Your task to perform on an android device: empty trash in the gmail app Image 0: 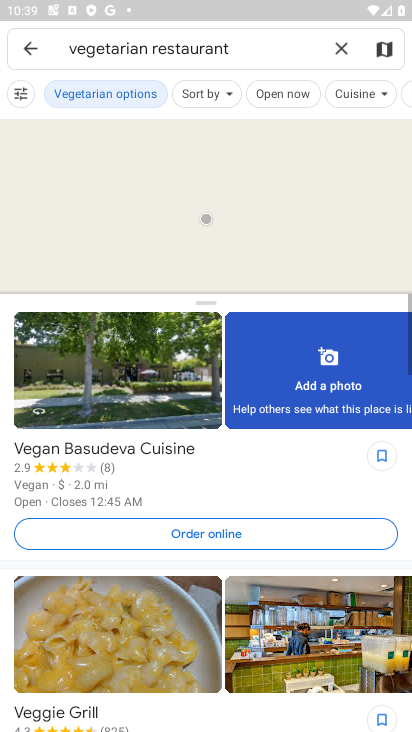
Step 0: press home button
Your task to perform on an android device: empty trash in the gmail app Image 1: 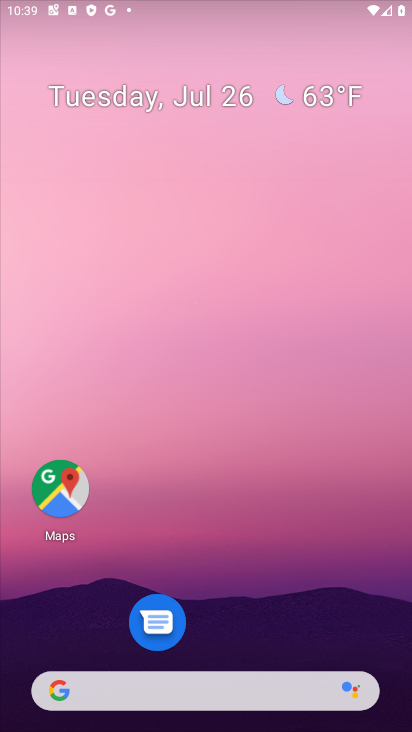
Step 1: drag from (288, 584) to (410, 3)
Your task to perform on an android device: empty trash in the gmail app Image 2: 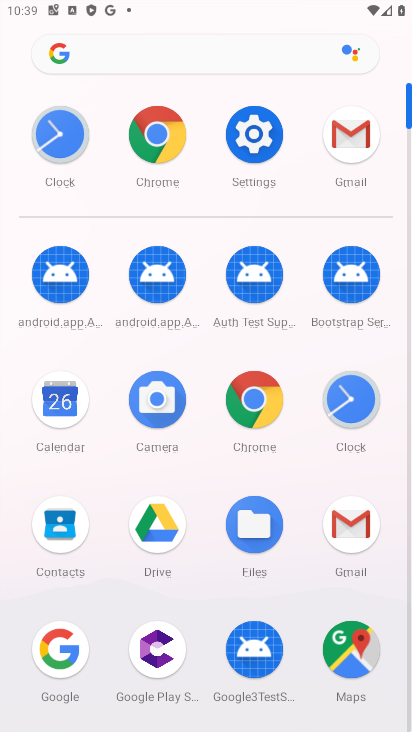
Step 2: click (363, 143)
Your task to perform on an android device: empty trash in the gmail app Image 3: 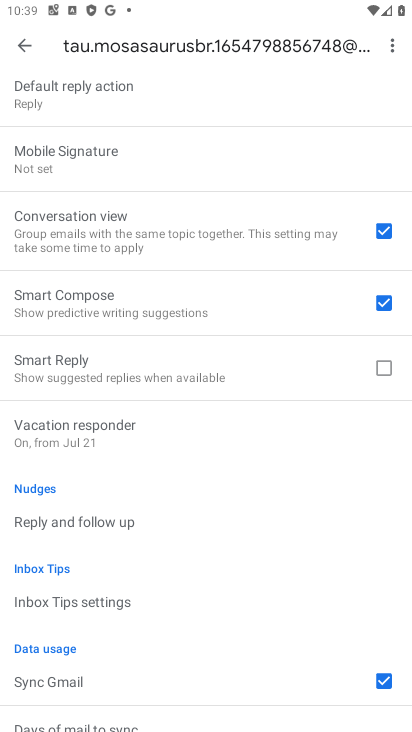
Step 3: click (35, 52)
Your task to perform on an android device: empty trash in the gmail app Image 4: 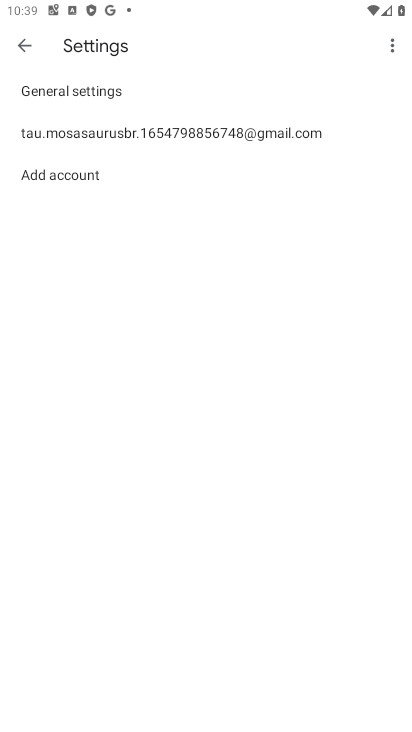
Step 4: click (18, 48)
Your task to perform on an android device: empty trash in the gmail app Image 5: 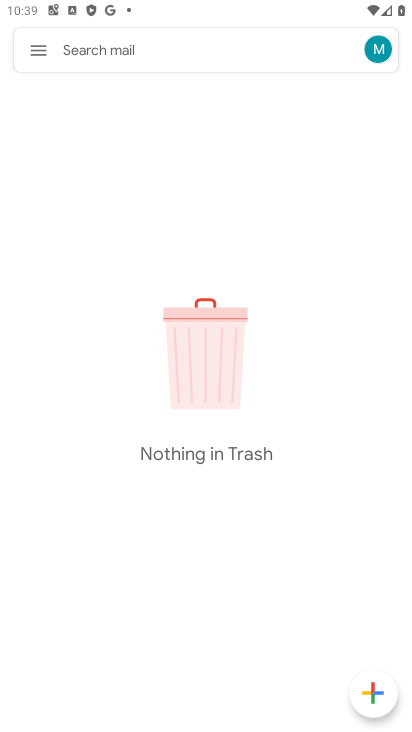
Step 5: click (19, 38)
Your task to perform on an android device: empty trash in the gmail app Image 6: 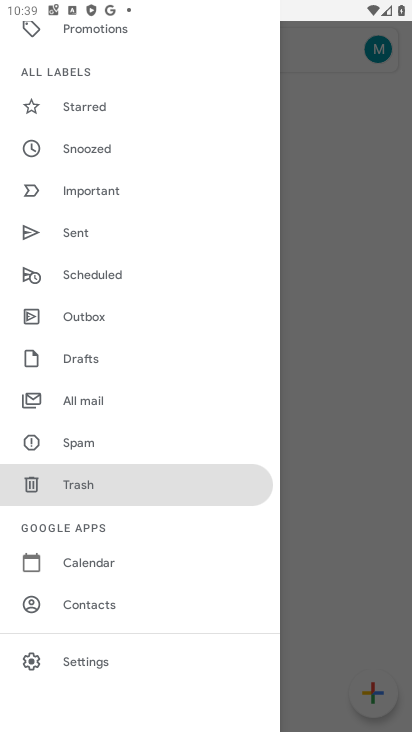
Step 6: click (104, 481)
Your task to perform on an android device: empty trash in the gmail app Image 7: 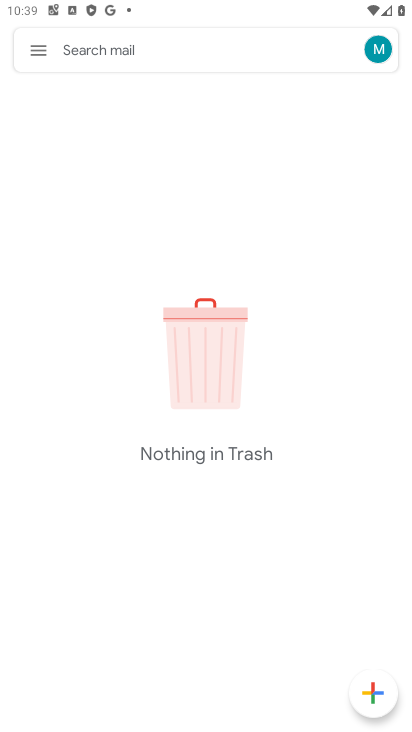
Step 7: task complete